Your task to perform on an android device: Show me productivity apps on the Play Store Image 0: 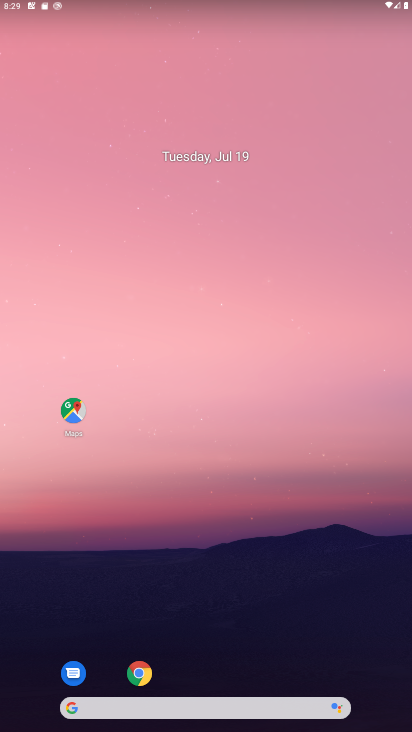
Step 0: drag from (321, 669) to (318, 164)
Your task to perform on an android device: Show me productivity apps on the Play Store Image 1: 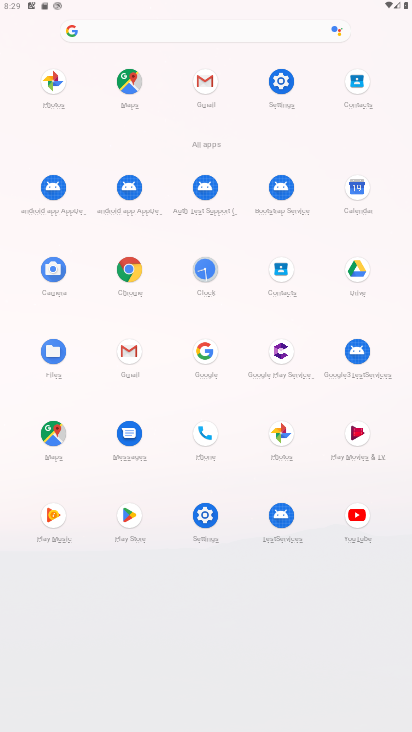
Step 1: click (130, 514)
Your task to perform on an android device: Show me productivity apps on the Play Store Image 2: 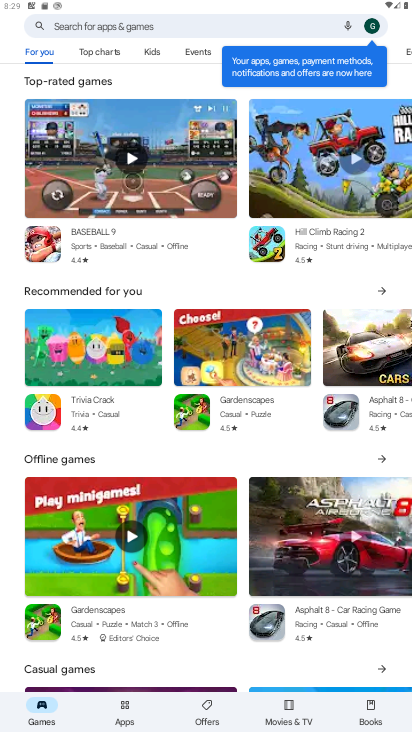
Step 2: click (129, 713)
Your task to perform on an android device: Show me productivity apps on the Play Store Image 3: 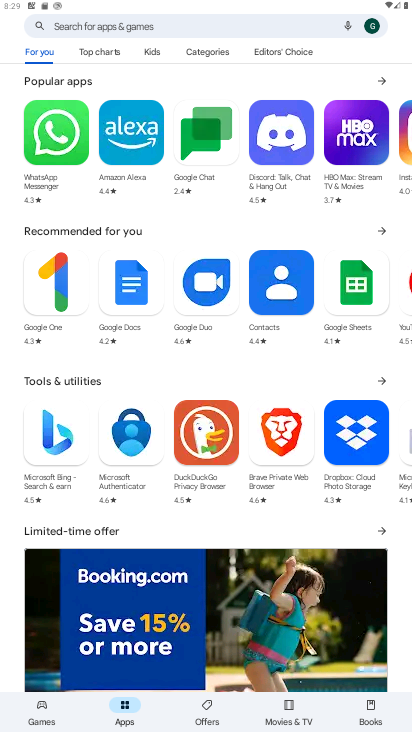
Step 3: click (207, 52)
Your task to perform on an android device: Show me productivity apps on the Play Store Image 4: 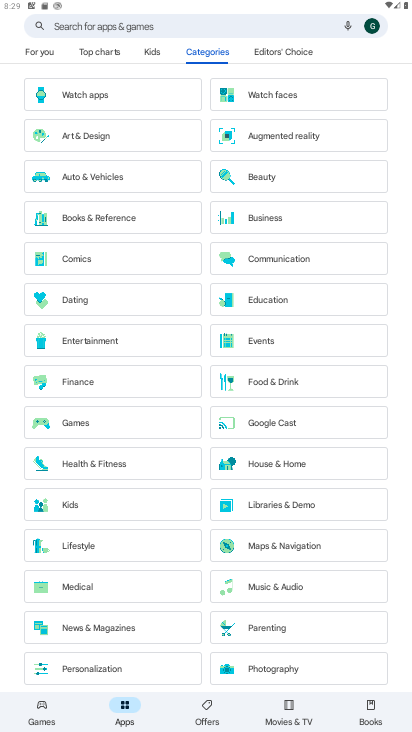
Step 4: drag from (207, 673) to (205, 583)
Your task to perform on an android device: Show me productivity apps on the Play Store Image 5: 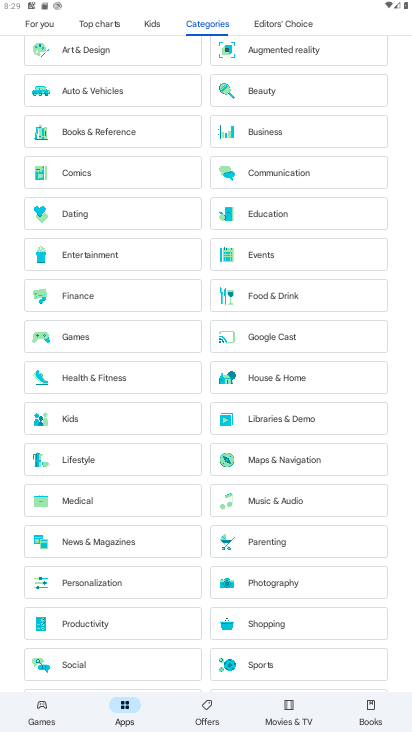
Step 5: click (83, 623)
Your task to perform on an android device: Show me productivity apps on the Play Store Image 6: 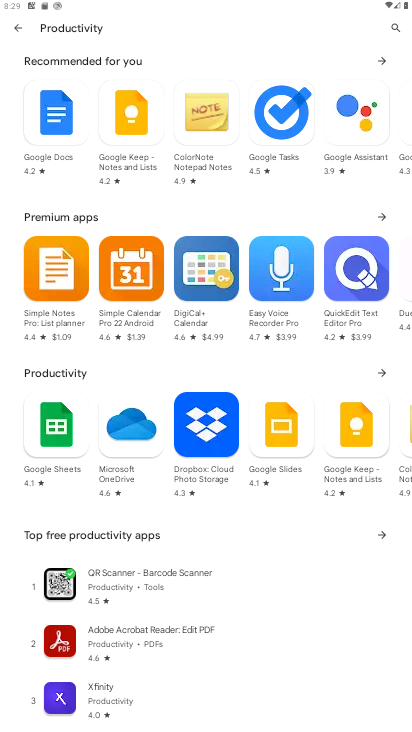
Step 6: click (383, 373)
Your task to perform on an android device: Show me productivity apps on the Play Store Image 7: 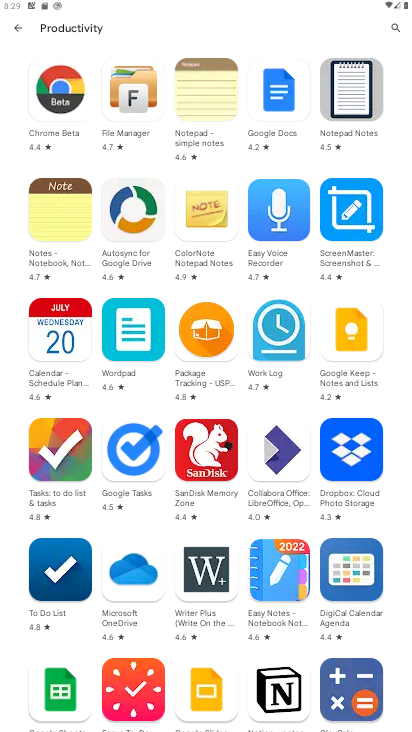
Step 7: task complete